Your task to perform on an android device: What's the weather today? Image 0: 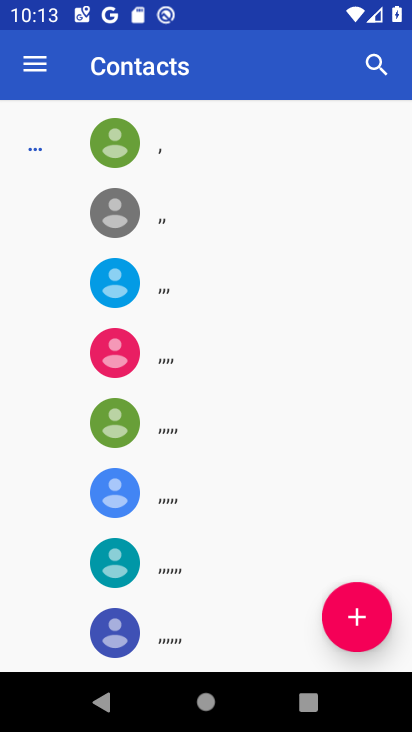
Step 0: press home button
Your task to perform on an android device: What's the weather today? Image 1: 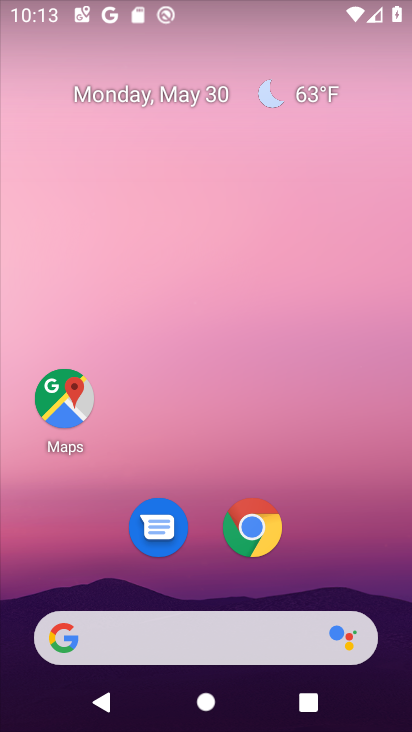
Step 1: click (246, 518)
Your task to perform on an android device: What's the weather today? Image 2: 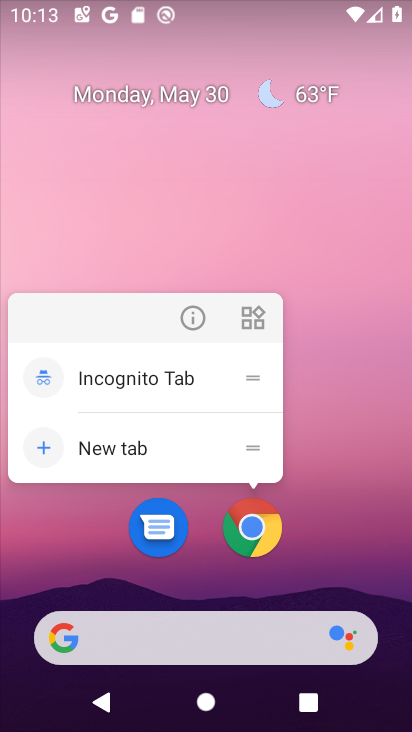
Step 2: click (260, 513)
Your task to perform on an android device: What's the weather today? Image 3: 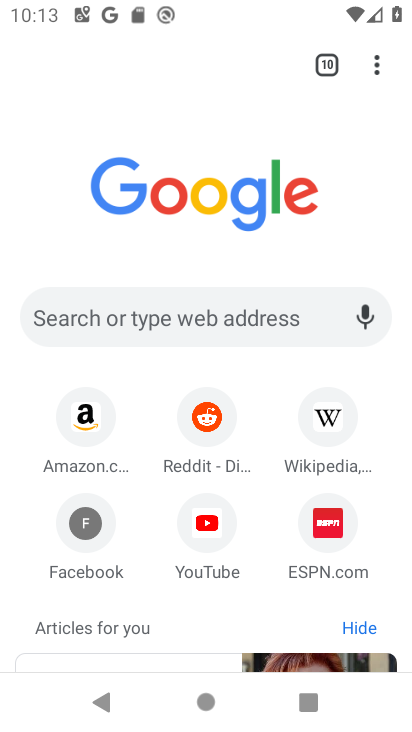
Step 3: click (226, 316)
Your task to perform on an android device: What's the weather today? Image 4: 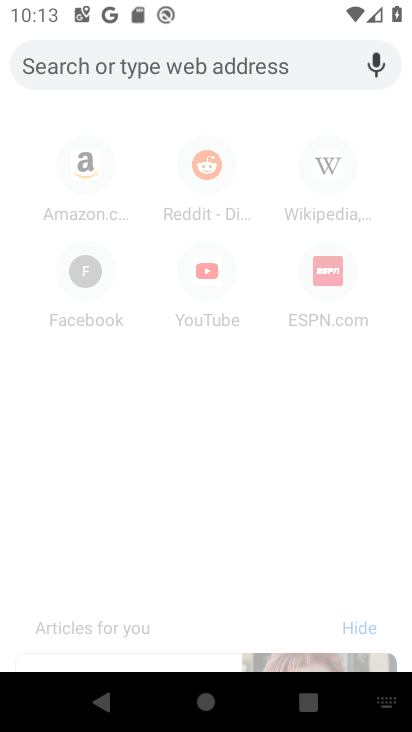
Step 4: type "What's the weather today?"
Your task to perform on an android device: What's the weather today? Image 5: 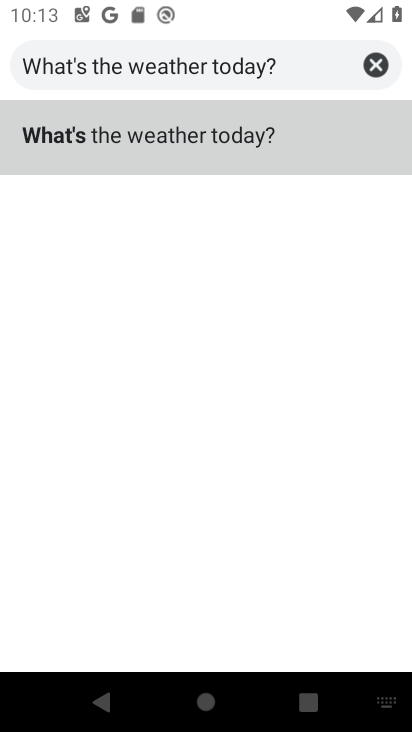
Step 5: click (216, 147)
Your task to perform on an android device: What's the weather today? Image 6: 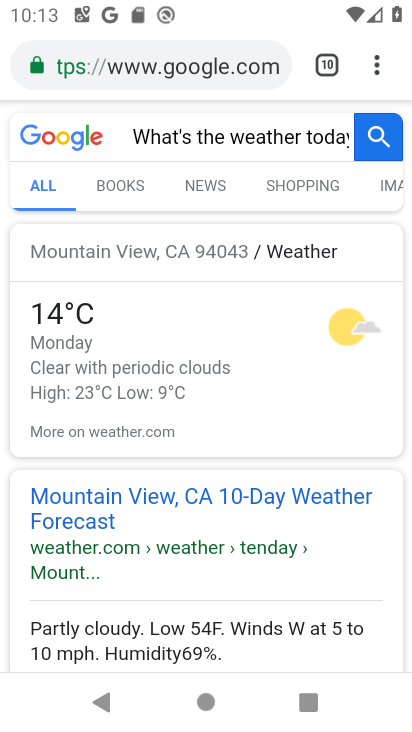
Step 6: task complete